Your task to perform on an android device: turn on showing notifications on the lock screen Image 0: 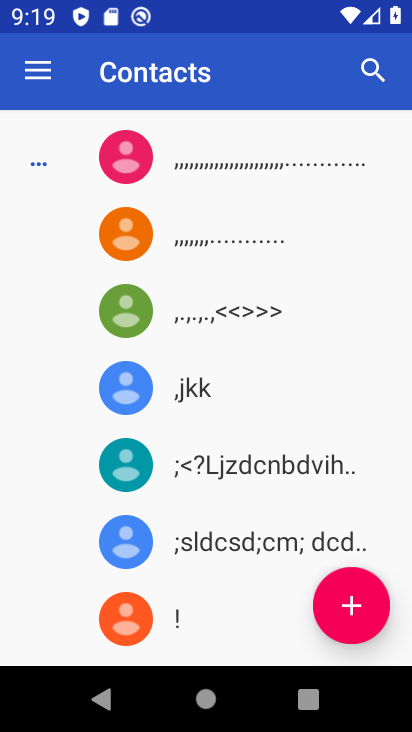
Step 0: press back button
Your task to perform on an android device: turn on showing notifications on the lock screen Image 1: 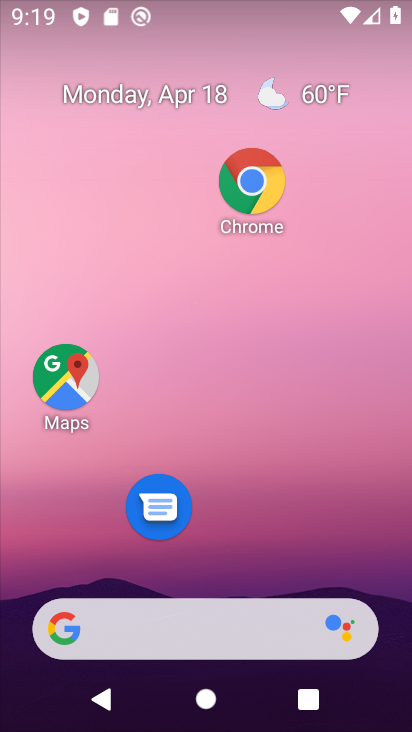
Step 1: drag from (253, 573) to (154, 154)
Your task to perform on an android device: turn on showing notifications on the lock screen Image 2: 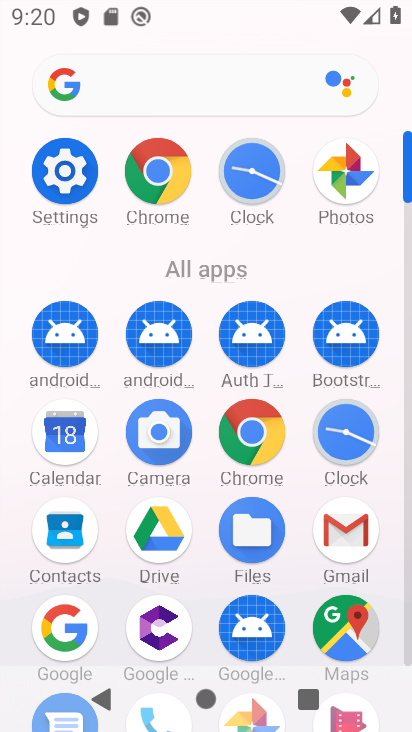
Step 2: click (80, 201)
Your task to perform on an android device: turn on showing notifications on the lock screen Image 3: 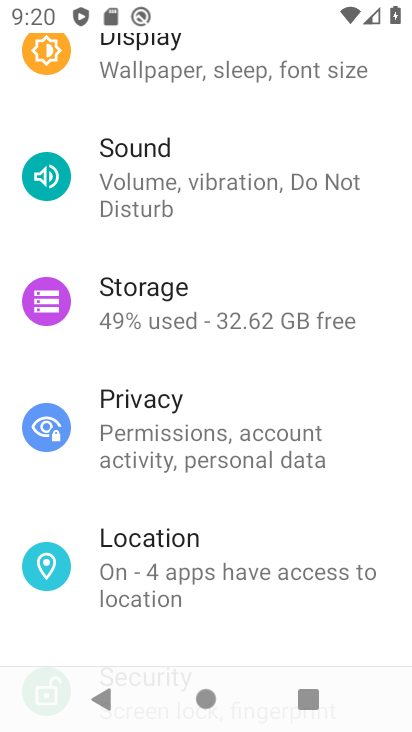
Step 3: drag from (194, 121) to (220, 571)
Your task to perform on an android device: turn on showing notifications on the lock screen Image 4: 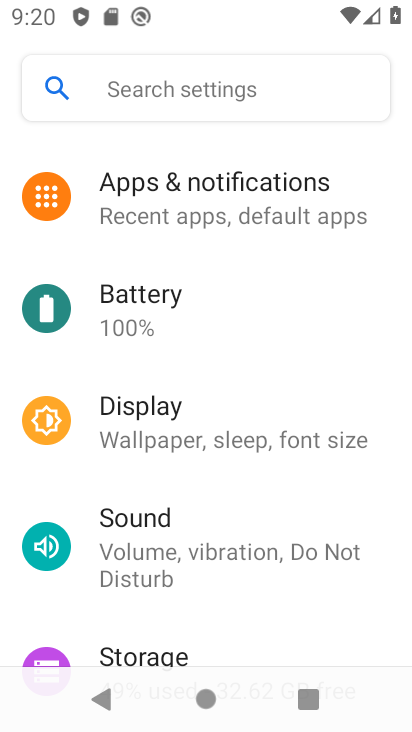
Step 4: click (177, 208)
Your task to perform on an android device: turn on showing notifications on the lock screen Image 5: 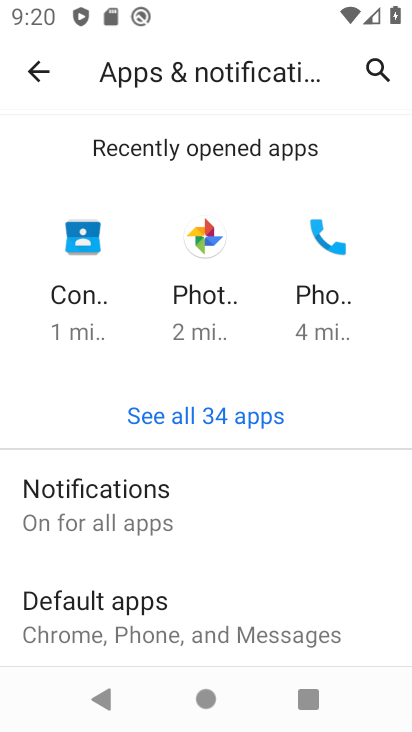
Step 5: drag from (192, 612) to (200, 215)
Your task to perform on an android device: turn on showing notifications on the lock screen Image 6: 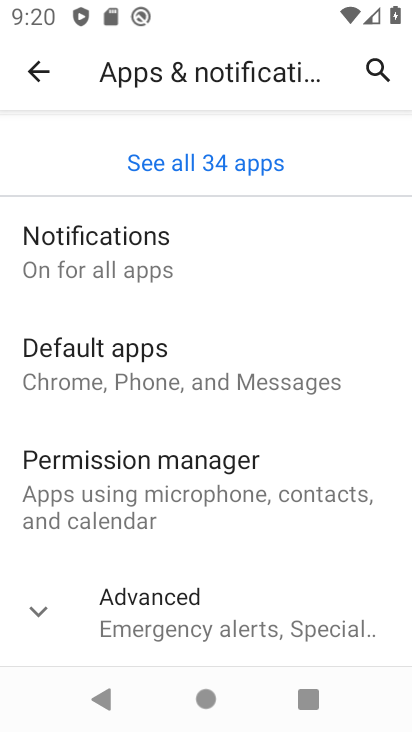
Step 6: click (135, 270)
Your task to perform on an android device: turn on showing notifications on the lock screen Image 7: 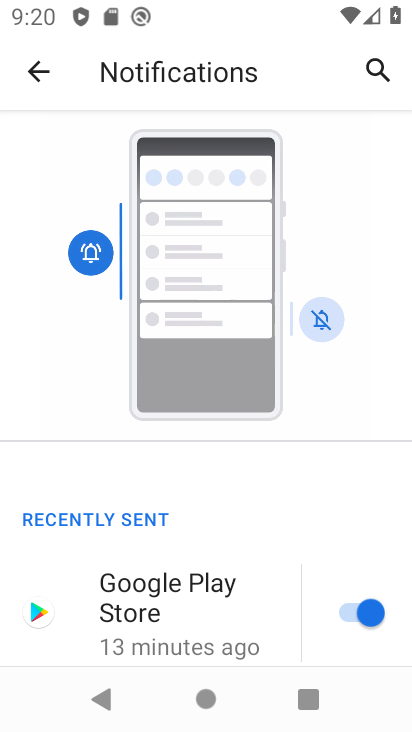
Step 7: drag from (142, 602) to (141, 211)
Your task to perform on an android device: turn on showing notifications on the lock screen Image 8: 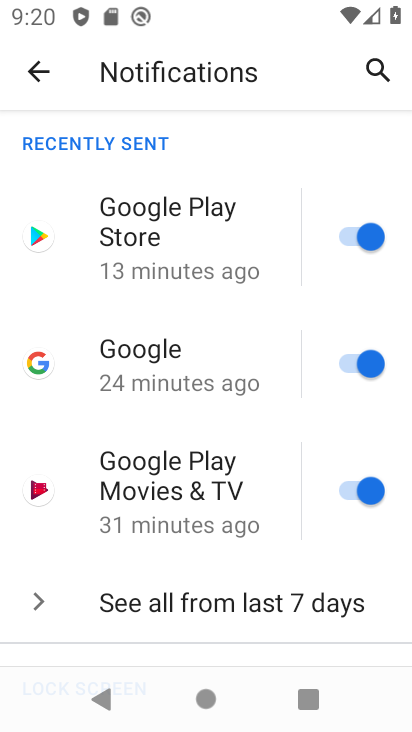
Step 8: drag from (196, 525) to (178, 181)
Your task to perform on an android device: turn on showing notifications on the lock screen Image 9: 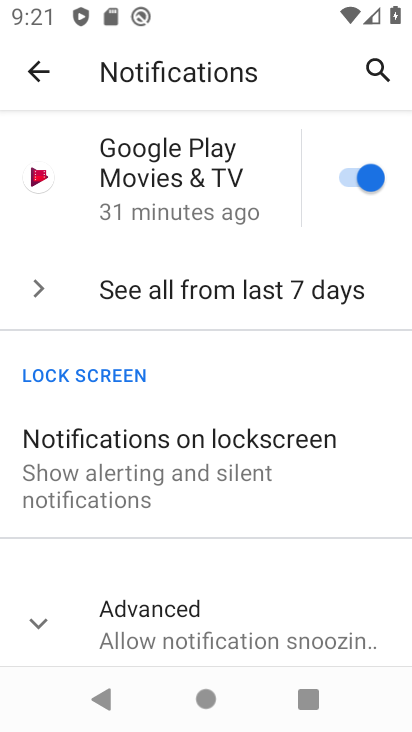
Step 9: click (157, 447)
Your task to perform on an android device: turn on showing notifications on the lock screen Image 10: 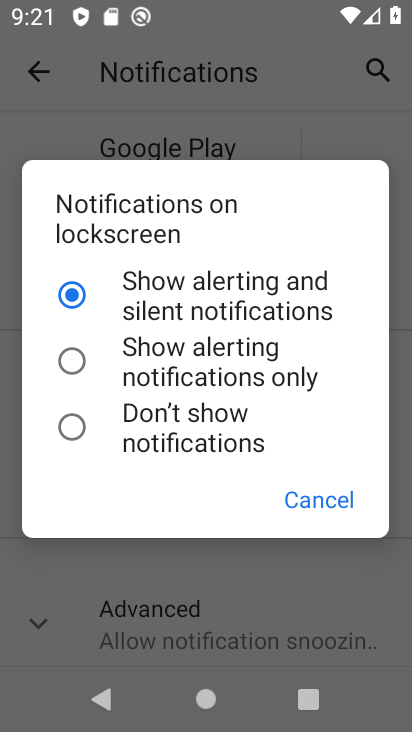
Step 10: click (194, 290)
Your task to perform on an android device: turn on showing notifications on the lock screen Image 11: 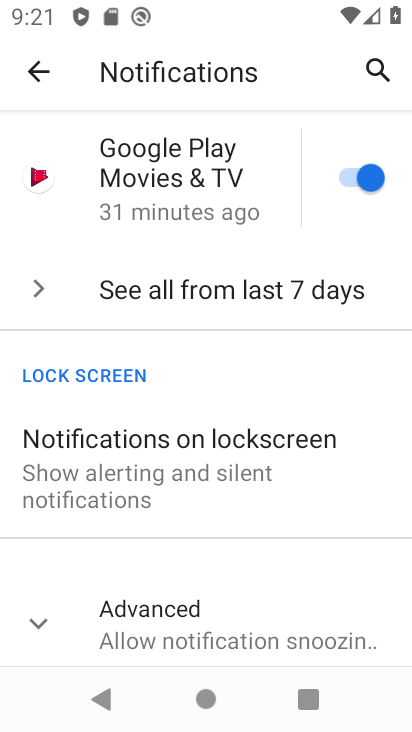
Step 11: task complete